Your task to perform on an android device: Open Maps and search for coffee Image 0: 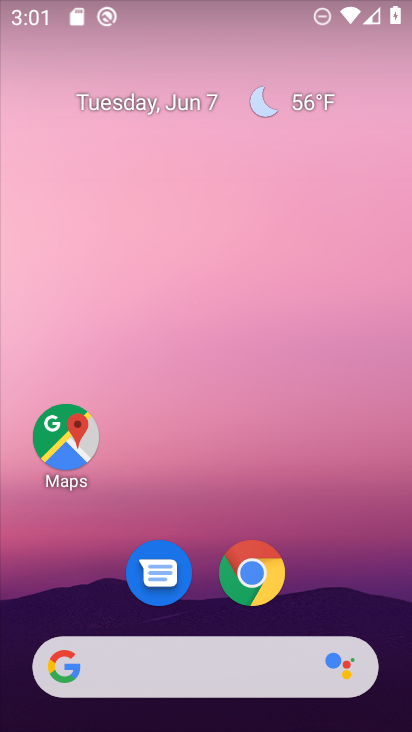
Step 0: click (71, 428)
Your task to perform on an android device: Open Maps and search for coffee Image 1: 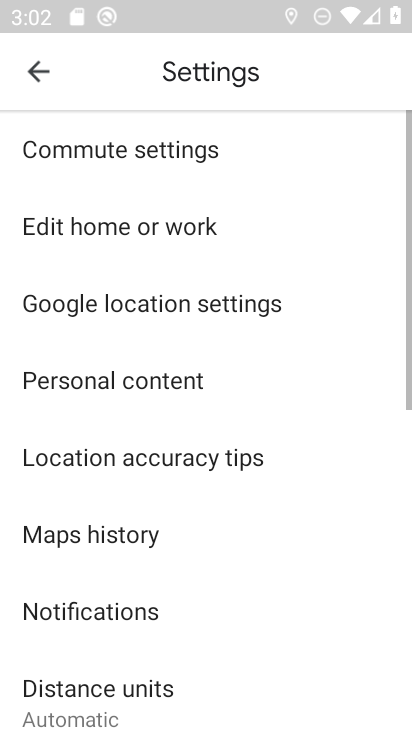
Step 1: click (17, 89)
Your task to perform on an android device: Open Maps and search for coffee Image 2: 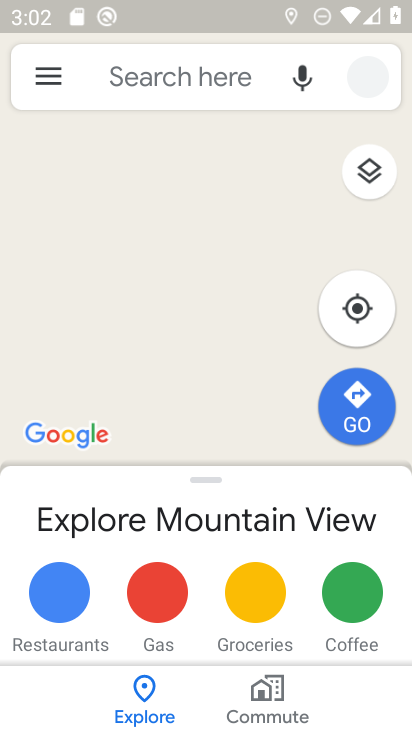
Step 2: click (166, 72)
Your task to perform on an android device: Open Maps and search for coffee Image 3: 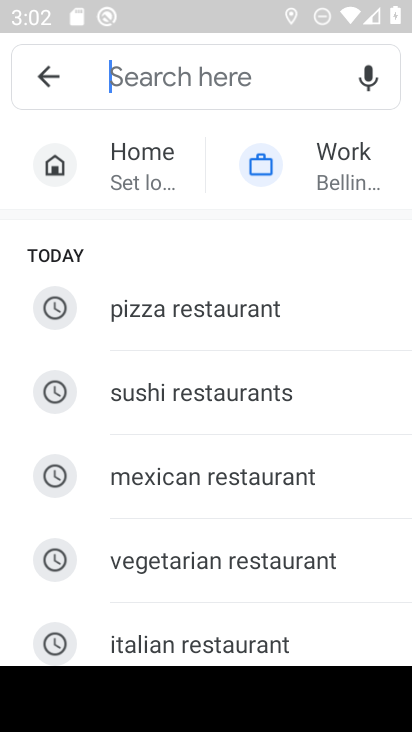
Step 3: type "coffee"
Your task to perform on an android device: Open Maps and search for coffee Image 4: 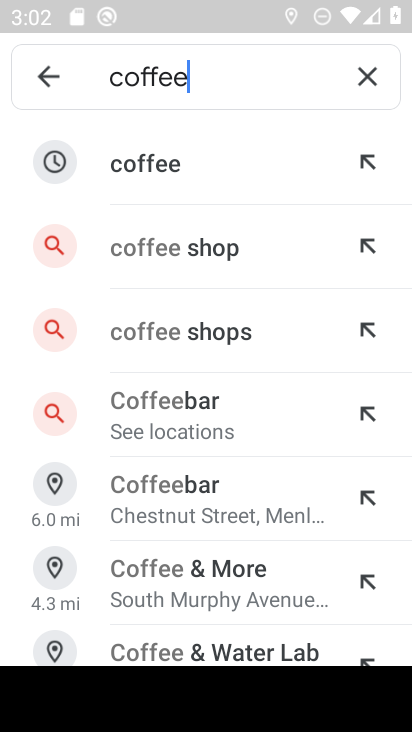
Step 4: click (175, 168)
Your task to perform on an android device: Open Maps and search for coffee Image 5: 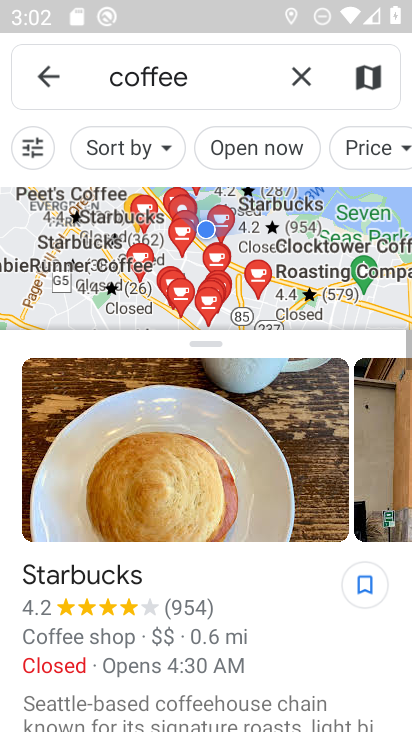
Step 5: task complete